Your task to perform on an android device: Open Google Maps Image 0: 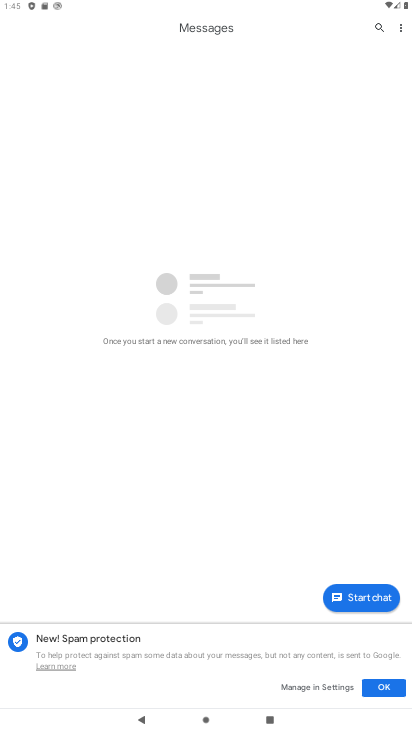
Step 0: press home button
Your task to perform on an android device: Open Google Maps Image 1: 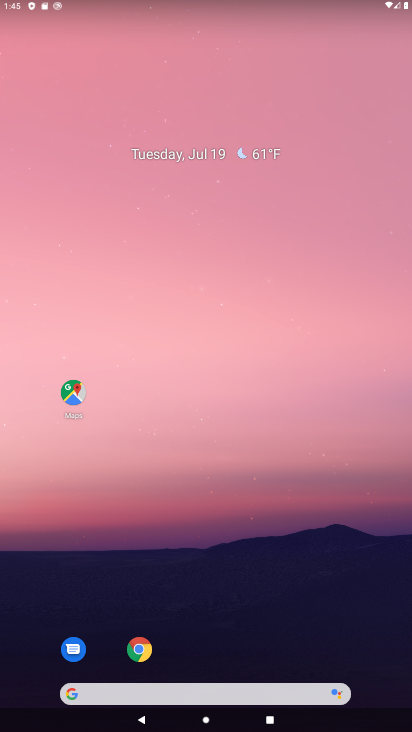
Step 1: drag from (297, 616) to (296, 93)
Your task to perform on an android device: Open Google Maps Image 2: 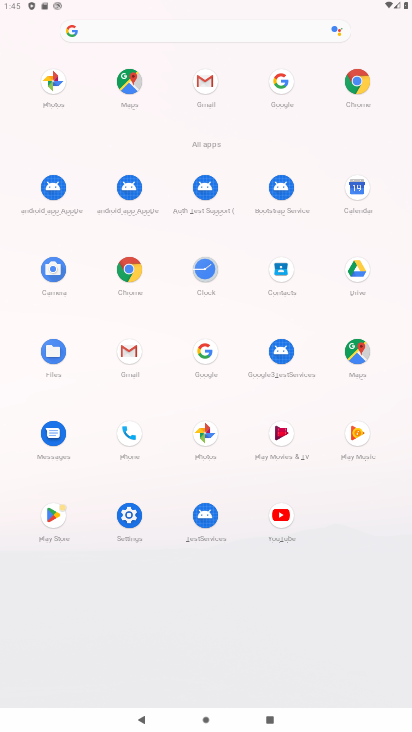
Step 2: click (359, 349)
Your task to perform on an android device: Open Google Maps Image 3: 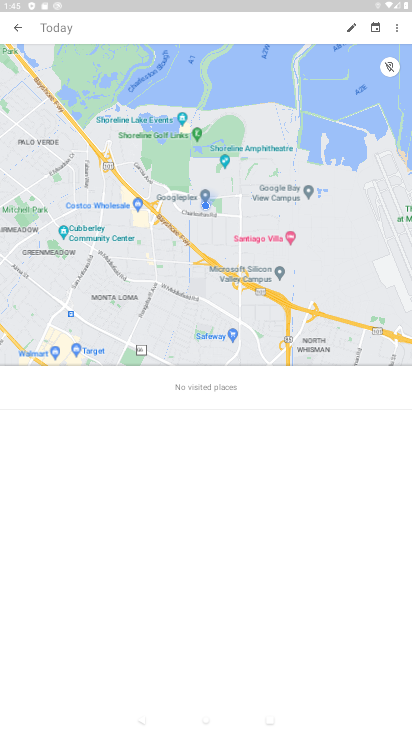
Step 3: task complete